Your task to perform on an android device: turn vacation reply on in the gmail app Image 0: 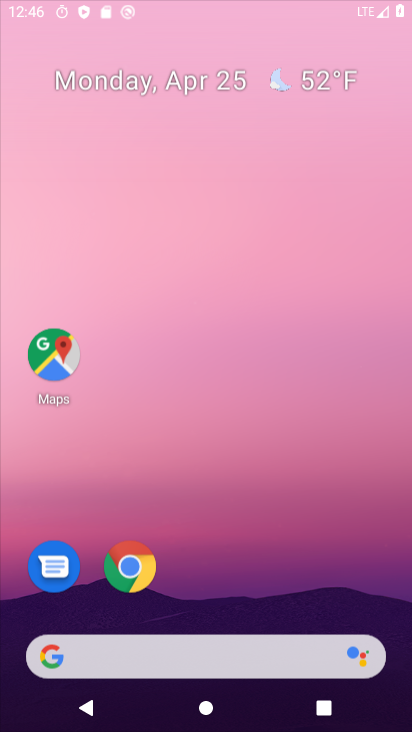
Step 0: click (332, 72)
Your task to perform on an android device: turn vacation reply on in the gmail app Image 1: 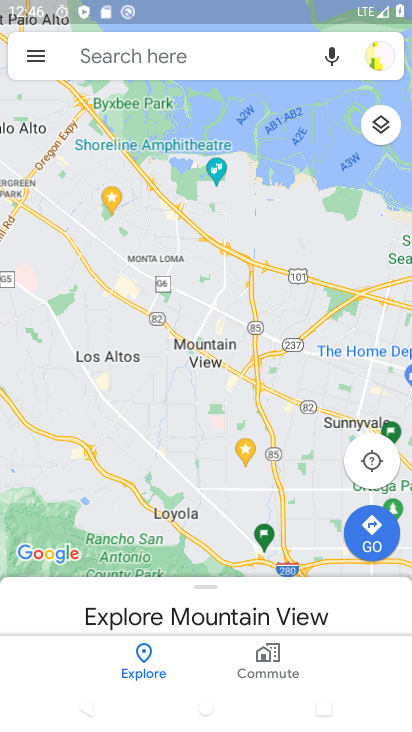
Step 1: press home button
Your task to perform on an android device: turn vacation reply on in the gmail app Image 2: 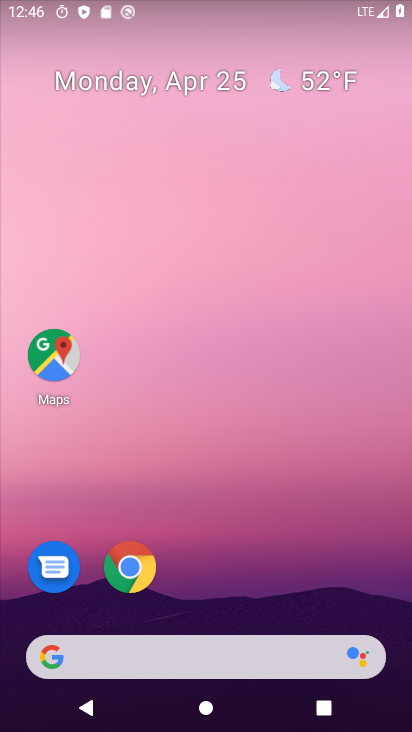
Step 2: drag from (225, 581) to (215, 0)
Your task to perform on an android device: turn vacation reply on in the gmail app Image 3: 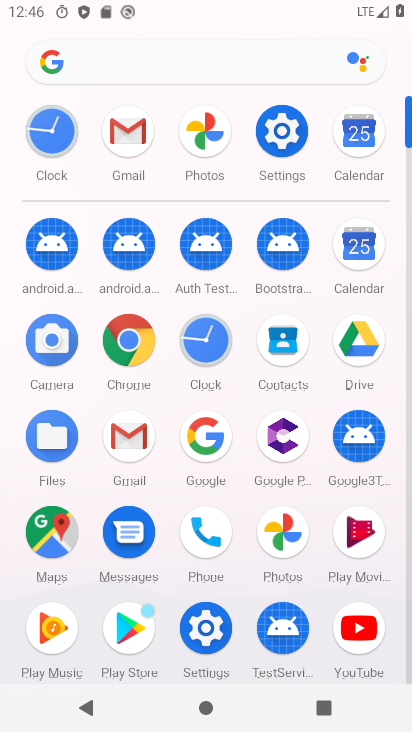
Step 3: click (135, 112)
Your task to perform on an android device: turn vacation reply on in the gmail app Image 4: 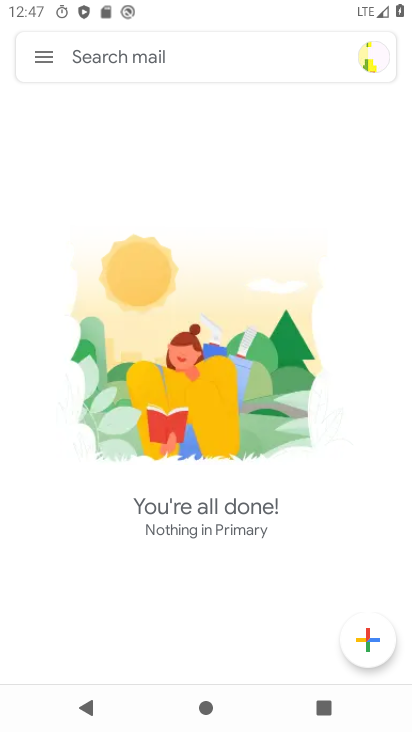
Step 4: click (42, 57)
Your task to perform on an android device: turn vacation reply on in the gmail app Image 5: 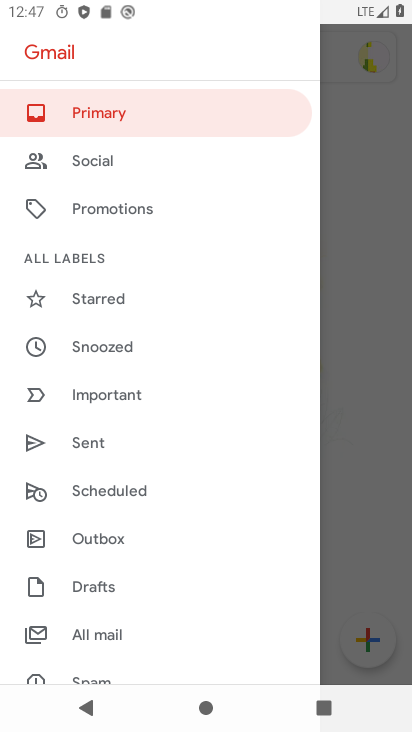
Step 5: drag from (159, 533) to (187, 288)
Your task to perform on an android device: turn vacation reply on in the gmail app Image 6: 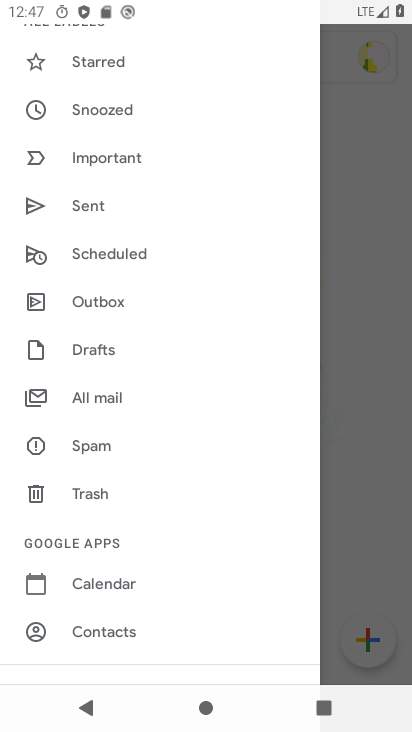
Step 6: drag from (168, 538) to (197, 308)
Your task to perform on an android device: turn vacation reply on in the gmail app Image 7: 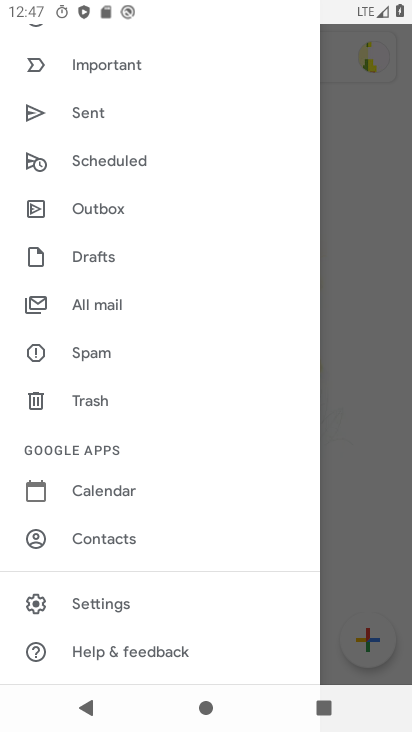
Step 7: click (113, 595)
Your task to perform on an android device: turn vacation reply on in the gmail app Image 8: 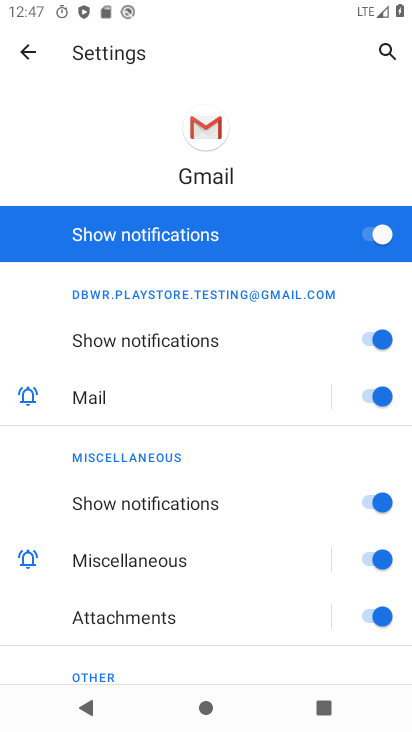
Step 8: click (27, 49)
Your task to perform on an android device: turn vacation reply on in the gmail app Image 9: 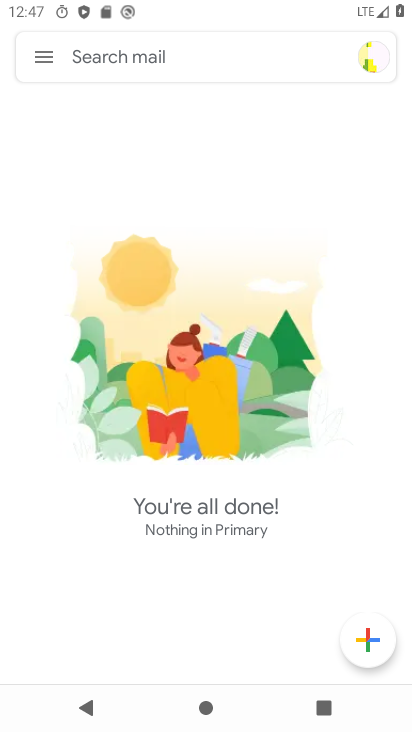
Step 9: click (42, 47)
Your task to perform on an android device: turn vacation reply on in the gmail app Image 10: 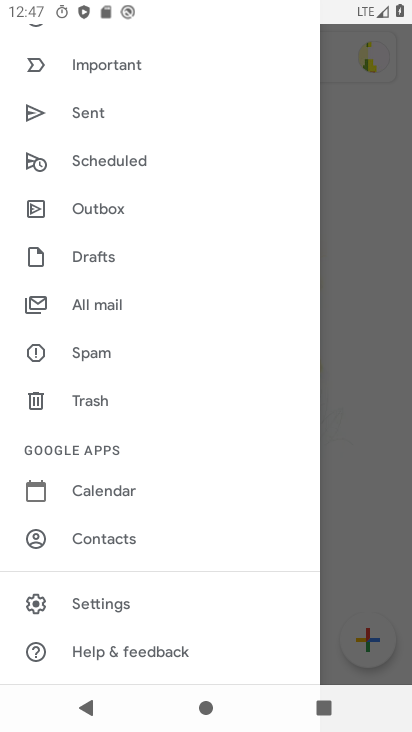
Step 10: click (139, 603)
Your task to perform on an android device: turn vacation reply on in the gmail app Image 11: 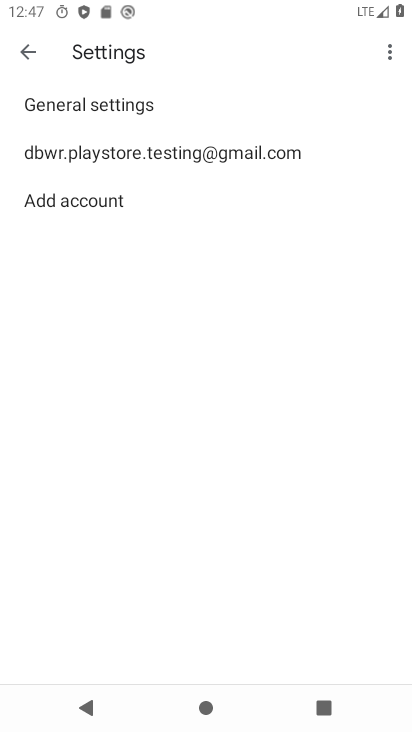
Step 11: click (228, 142)
Your task to perform on an android device: turn vacation reply on in the gmail app Image 12: 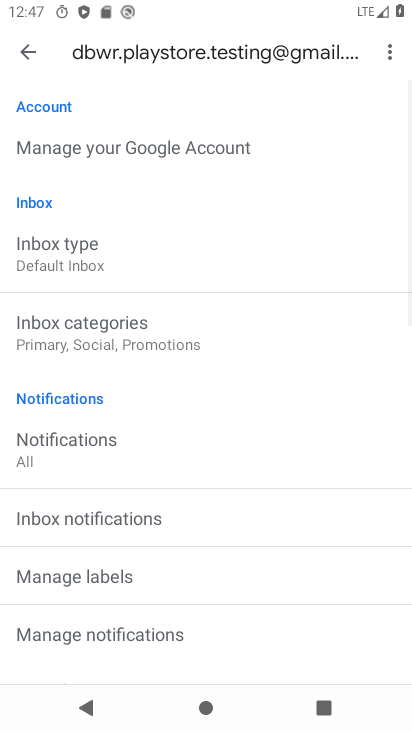
Step 12: drag from (254, 600) to (265, 102)
Your task to perform on an android device: turn vacation reply on in the gmail app Image 13: 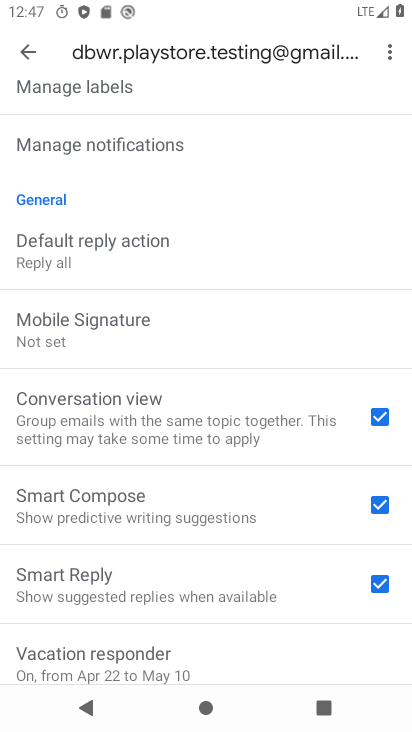
Step 13: drag from (204, 617) to (228, 168)
Your task to perform on an android device: turn vacation reply on in the gmail app Image 14: 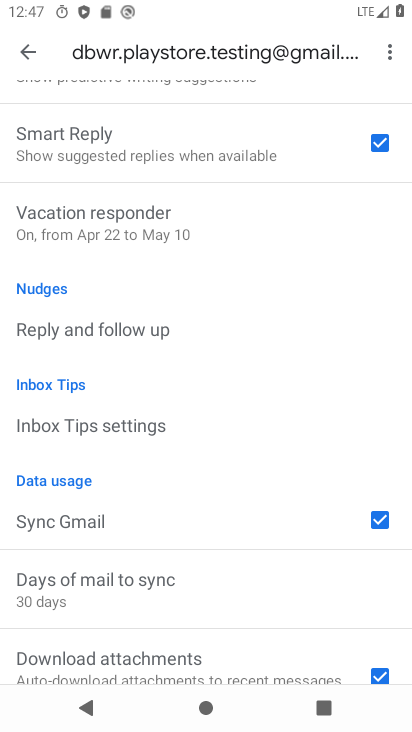
Step 14: click (210, 224)
Your task to perform on an android device: turn vacation reply on in the gmail app Image 15: 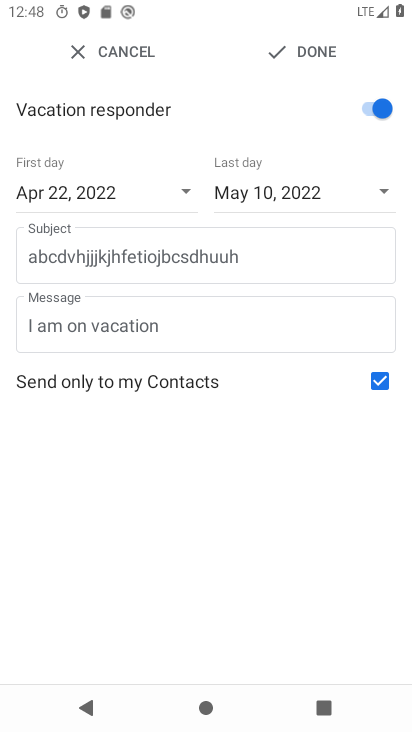
Step 15: task complete